Your task to perform on an android device: Go to sound settings Image 0: 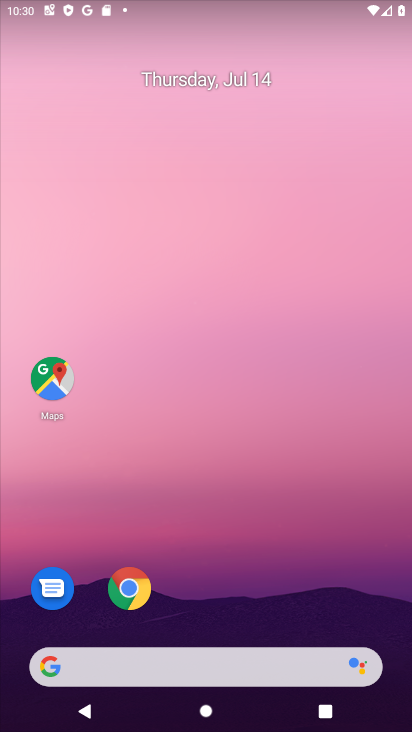
Step 0: drag from (119, 669) to (269, 193)
Your task to perform on an android device: Go to sound settings Image 1: 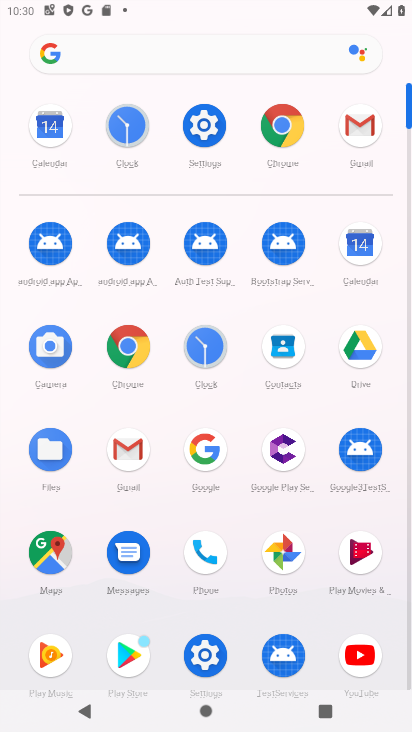
Step 1: click (212, 122)
Your task to perform on an android device: Go to sound settings Image 2: 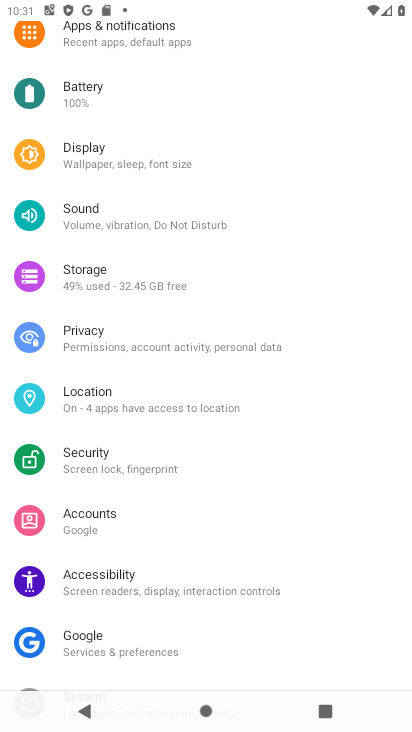
Step 2: click (91, 221)
Your task to perform on an android device: Go to sound settings Image 3: 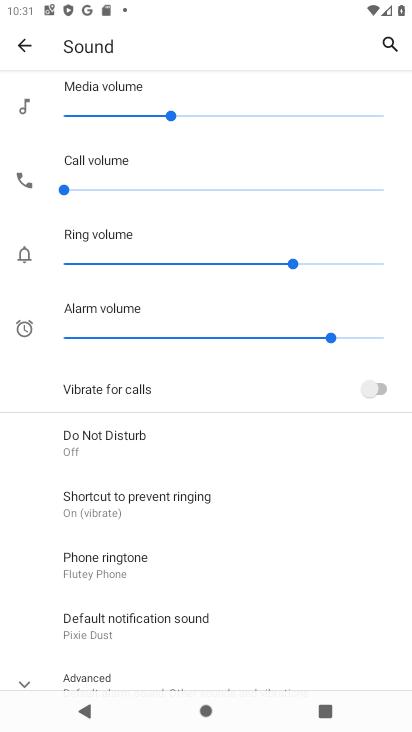
Step 3: task complete